Your task to perform on an android device: turn off translation in the chrome app Image 0: 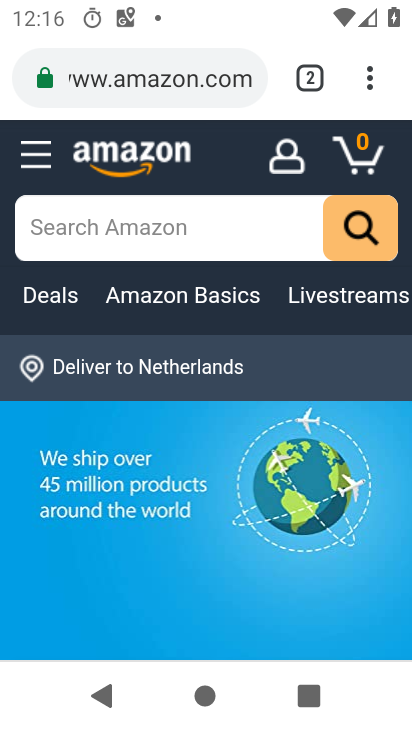
Step 0: press home button
Your task to perform on an android device: turn off translation in the chrome app Image 1: 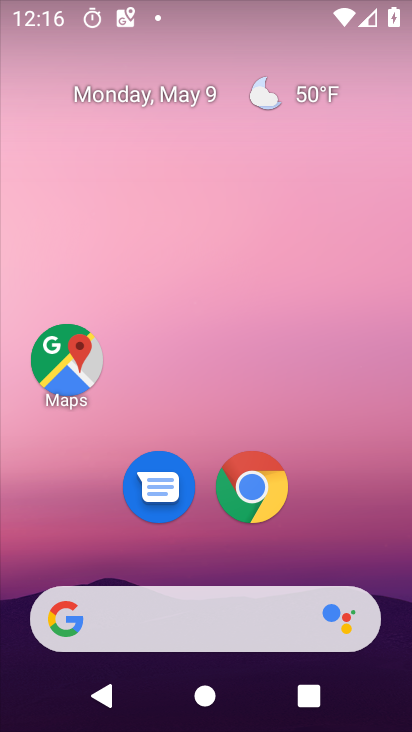
Step 1: click (249, 496)
Your task to perform on an android device: turn off translation in the chrome app Image 2: 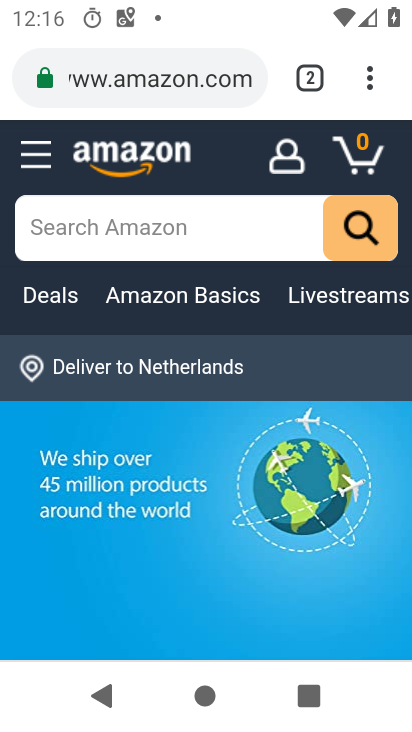
Step 2: drag from (367, 90) to (158, 557)
Your task to perform on an android device: turn off translation in the chrome app Image 3: 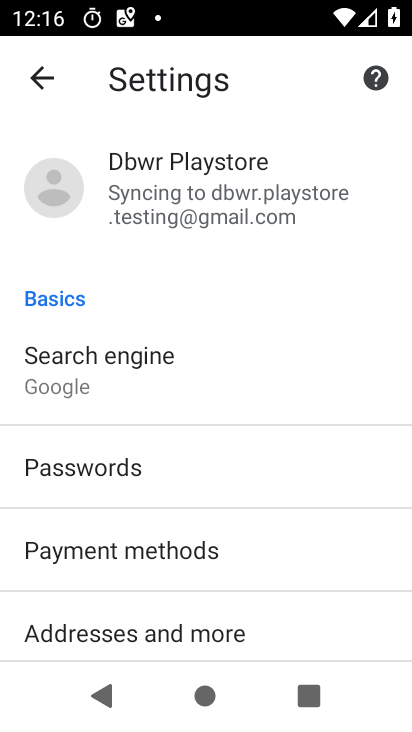
Step 3: drag from (237, 621) to (243, 190)
Your task to perform on an android device: turn off translation in the chrome app Image 4: 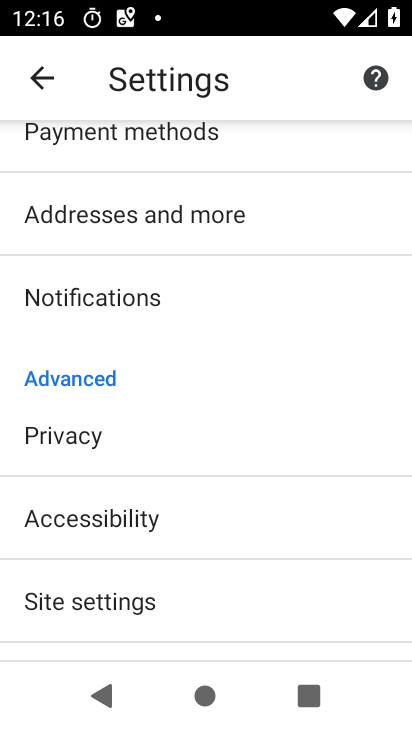
Step 4: drag from (193, 617) to (209, 333)
Your task to perform on an android device: turn off translation in the chrome app Image 5: 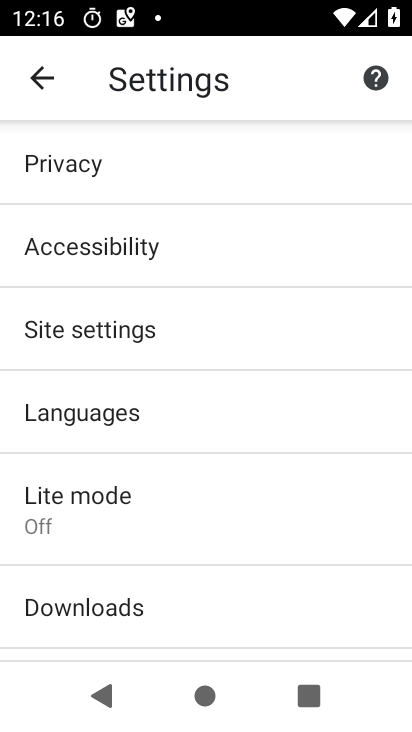
Step 5: click (171, 411)
Your task to perform on an android device: turn off translation in the chrome app Image 6: 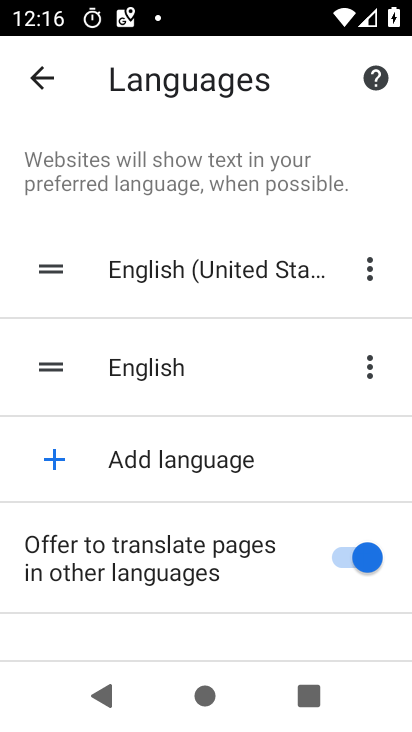
Step 6: click (372, 552)
Your task to perform on an android device: turn off translation in the chrome app Image 7: 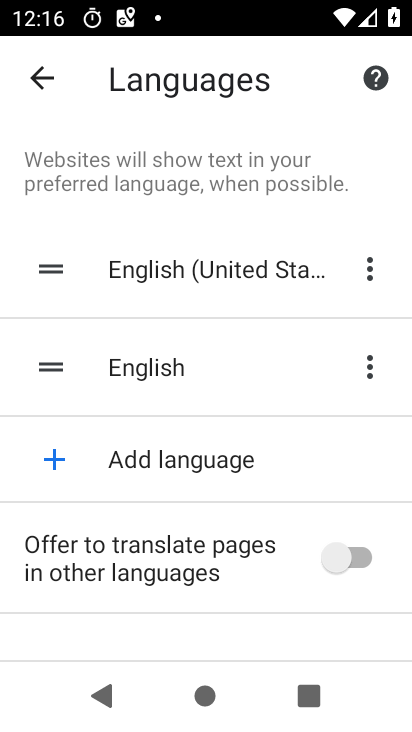
Step 7: task complete